Your task to perform on an android device: turn on improve location accuracy Image 0: 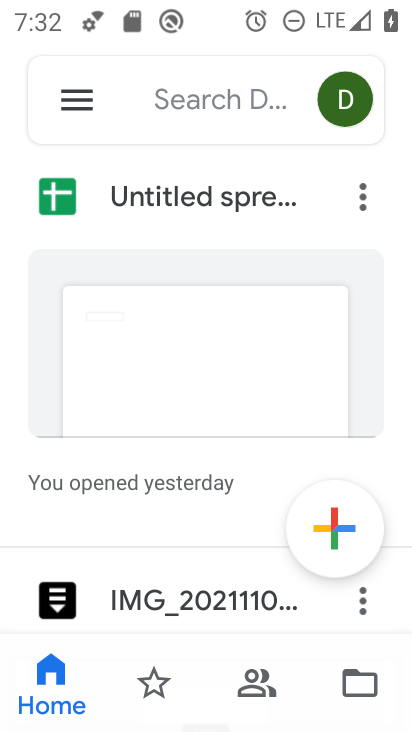
Step 0: press home button
Your task to perform on an android device: turn on improve location accuracy Image 1: 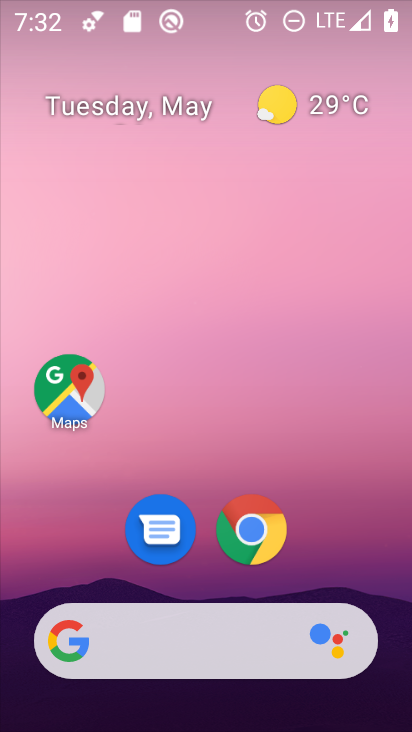
Step 1: drag from (383, 647) to (392, 124)
Your task to perform on an android device: turn on improve location accuracy Image 2: 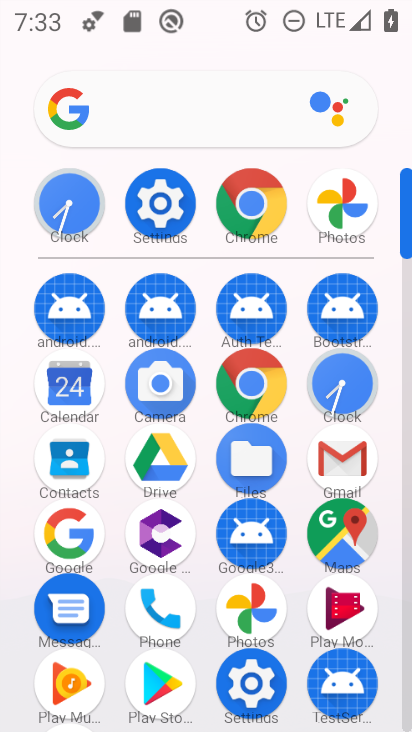
Step 2: click (229, 664)
Your task to perform on an android device: turn on improve location accuracy Image 3: 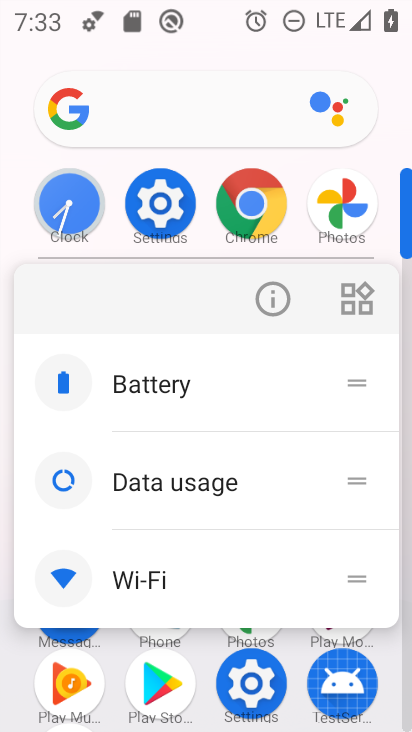
Step 3: click (229, 664)
Your task to perform on an android device: turn on improve location accuracy Image 4: 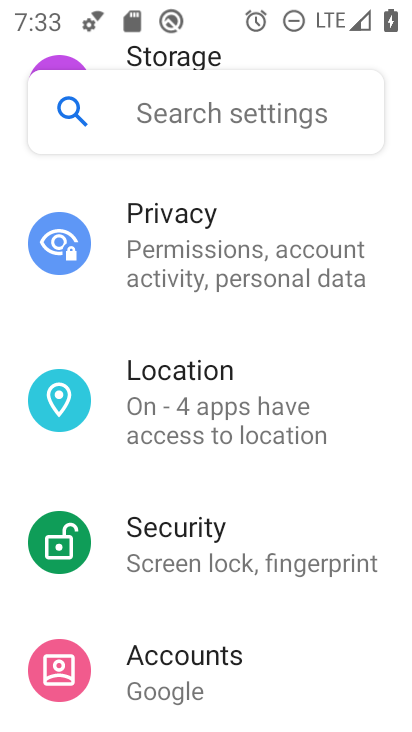
Step 4: click (107, 387)
Your task to perform on an android device: turn on improve location accuracy Image 5: 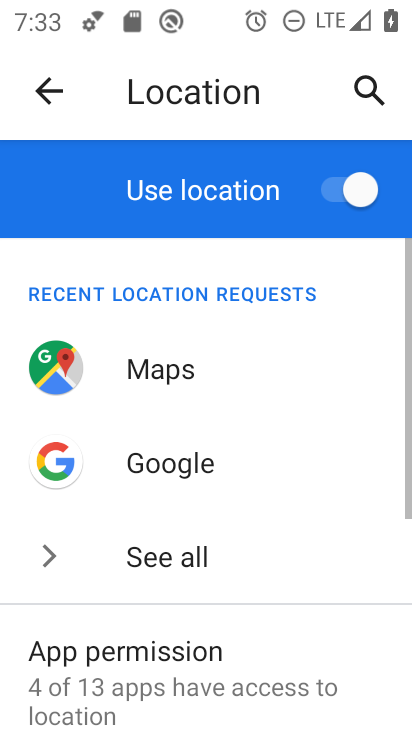
Step 5: drag from (277, 661) to (184, 108)
Your task to perform on an android device: turn on improve location accuracy Image 6: 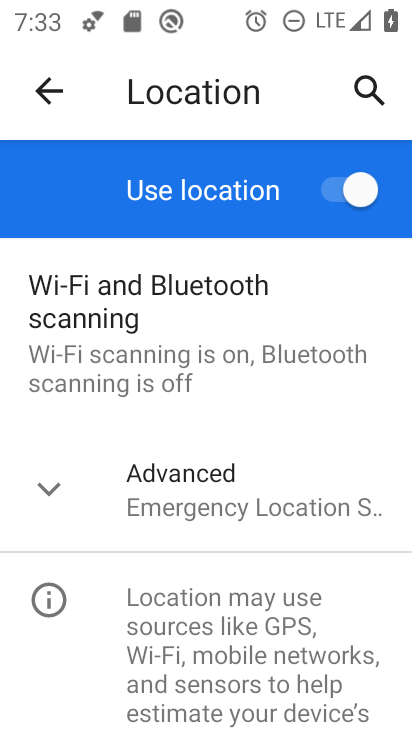
Step 6: click (127, 488)
Your task to perform on an android device: turn on improve location accuracy Image 7: 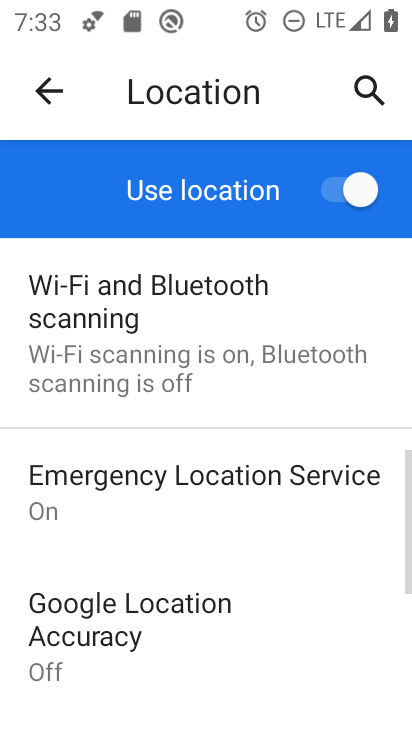
Step 7: click (150, 633)
Your task to perform on an android device: turn on improve location accuracy Image 8: 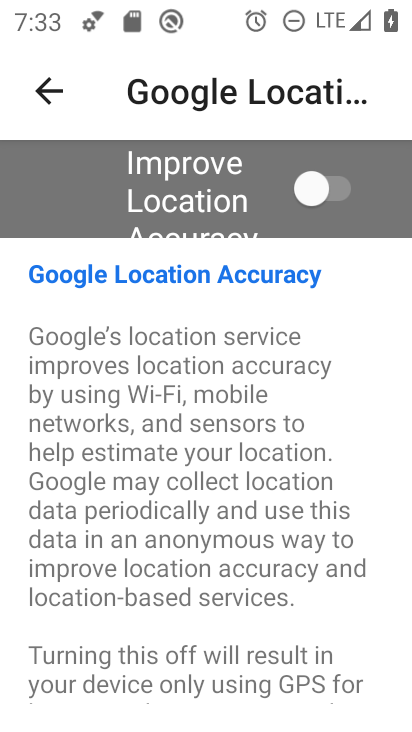
Step 8: click (355, 199)
Your task to perform on an android device: turn on improve location accuracy Image 9: 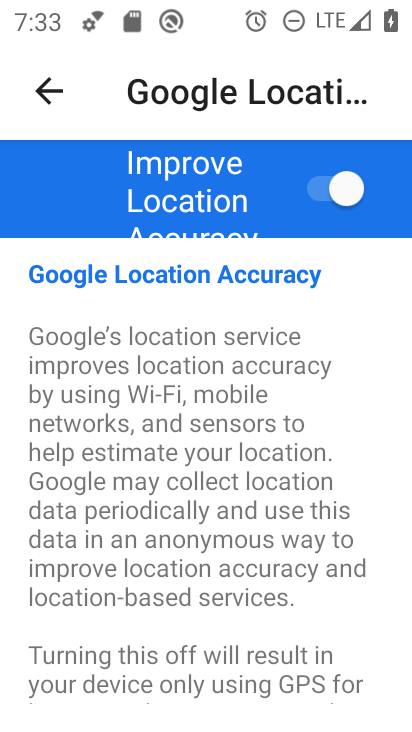
Step 9: task complete